Your task to perform on an android device: Search for pizza restaurants on Maps Image 0: 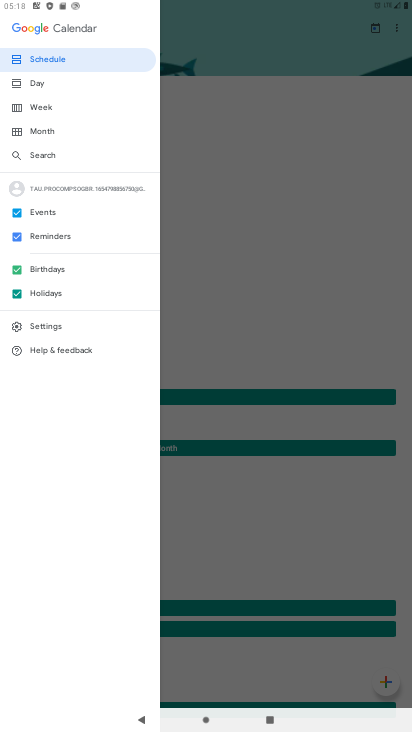
Step 0: press home button
Your task to perform on an android device: Search for pizza restaurants on Maps Image 1: 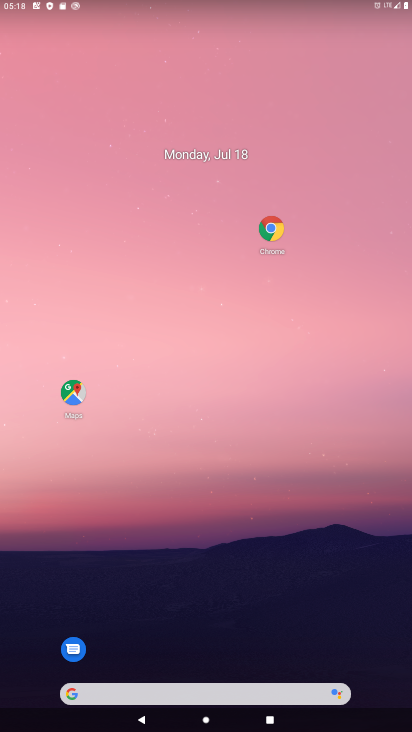
Step 1: click (71, 390)
Your task to perform on an android device: Search for pizza restaurants on Maps Image 2: 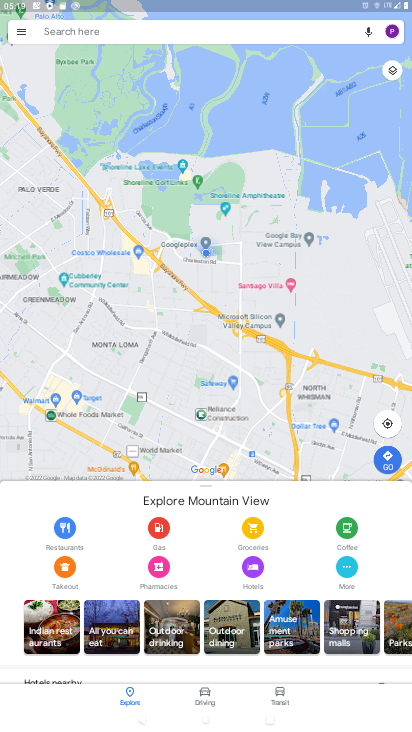
Step 2: click (127, 27)
Your task to perform on an android device: Search for pizza restaurants on Maps Image 3: 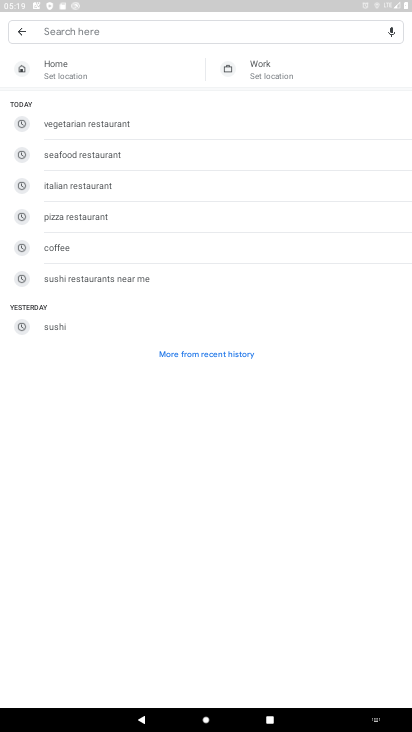
Step 3: click (83, 218)
Your task to perform on an android device: Search for pizza restaurants on Maps Image 4: 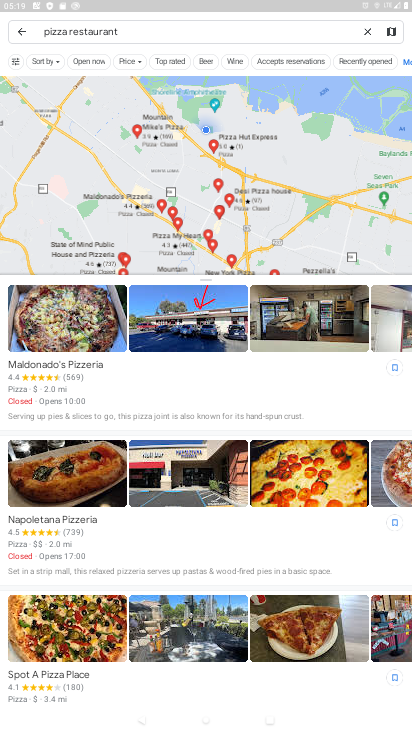
Step 4: task complete